Your task to perform on an android device: toggle notification dots Image 0: 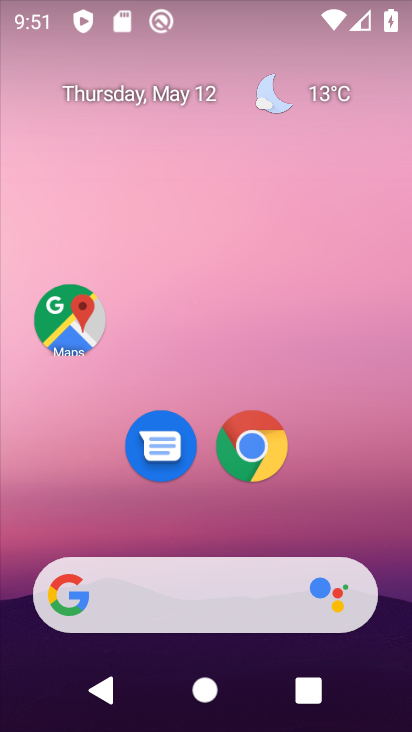
Step 0: click (405, 547)
Your task to perform on an android device: toggle notification dots Image 1: 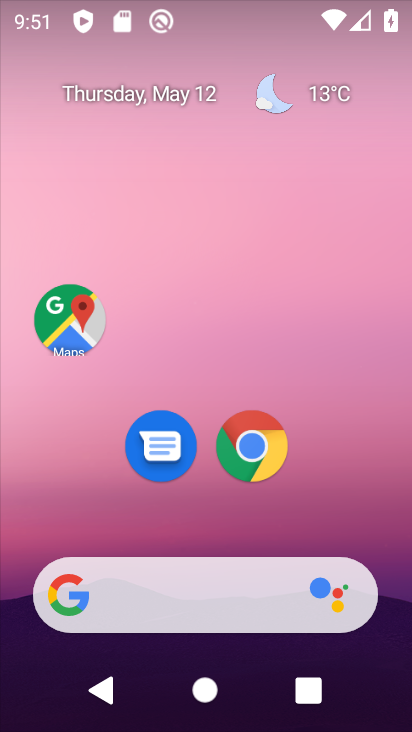
Step 1: drag from (217, 545) to (232, 74)
Your task to perform on an android device: toggle notification dots Image 2: 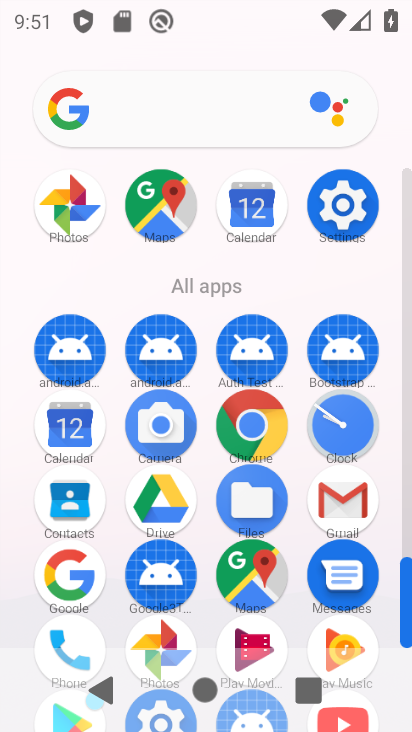
Step 2: click (347, 204)
Your task to perform on an android device: toggle notification dots Image 3: 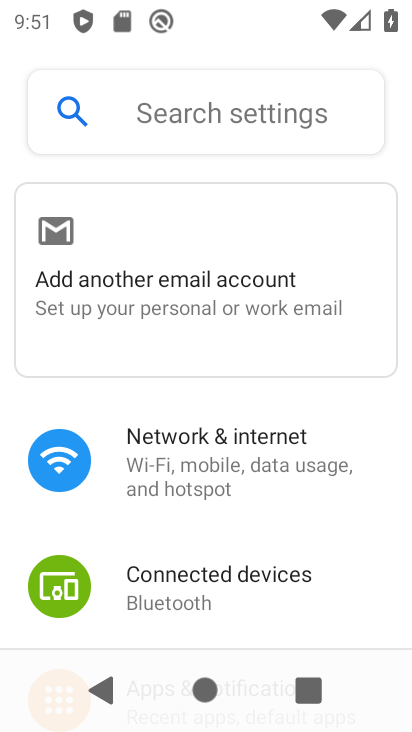
Step 3: drag from (211, 590) to (238, 247)
Your task to perform on an android device: toggle notification dots Image 4: 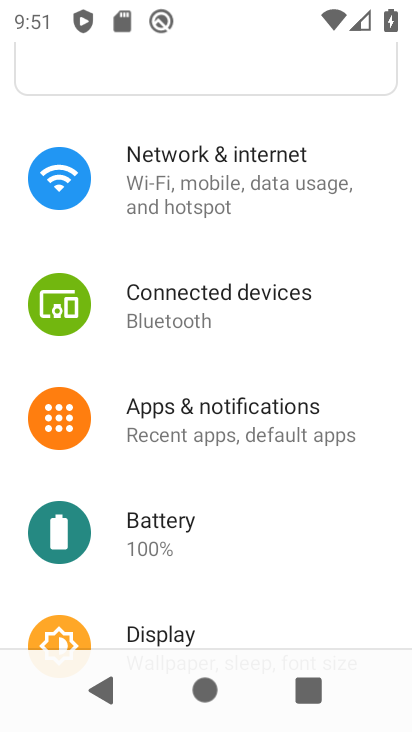
Step 4: click (215, 421)
Your task to perform on an android device: toggle notification dots Image 5: 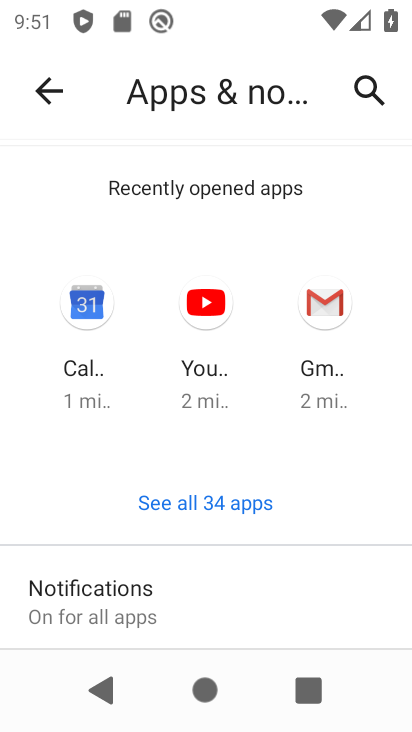
Step 5: drag from (210, 550) to (231, 308)
Your task to perform on an android device: toggle notification dots Image 6: 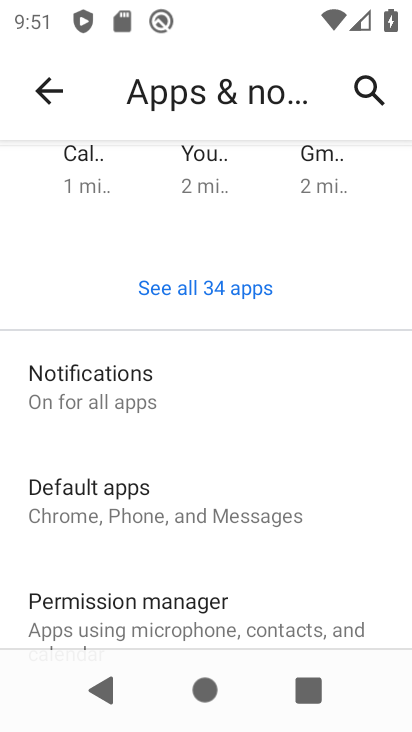
Step 6: click (174, 370)
Your task to perform on an android device: toggle notification dots Image 7: 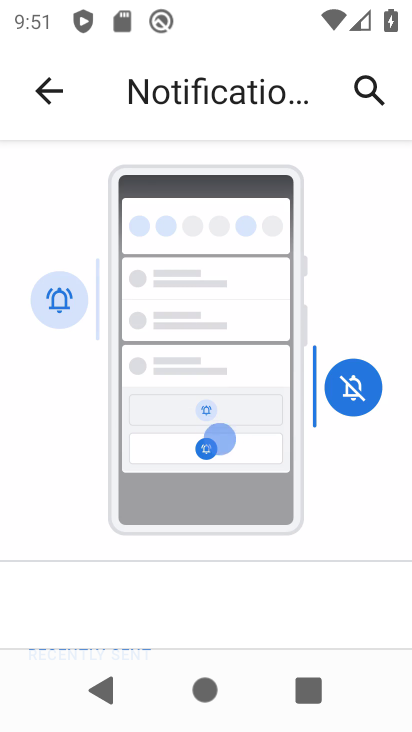
Step 7: drag from (204, 592) to (239, 208)
Your task to perform on an android device: toggle notification dots Image 8: 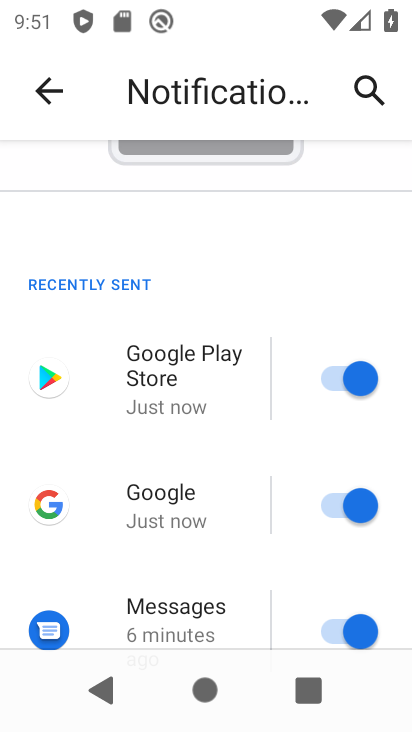
Step 8: drag from (213, 531) to (227, 11)
Your task to perform on an android device: toggle notification dots Image 9: 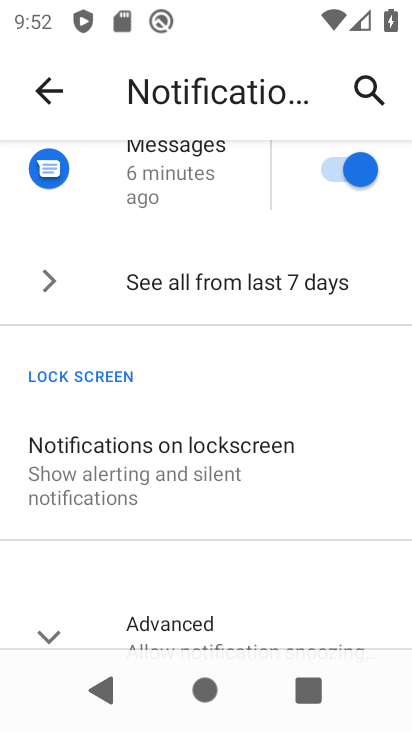
Step 9: click (209, 626)
Your task to perform on an android device: toggle notification dots Image 10: 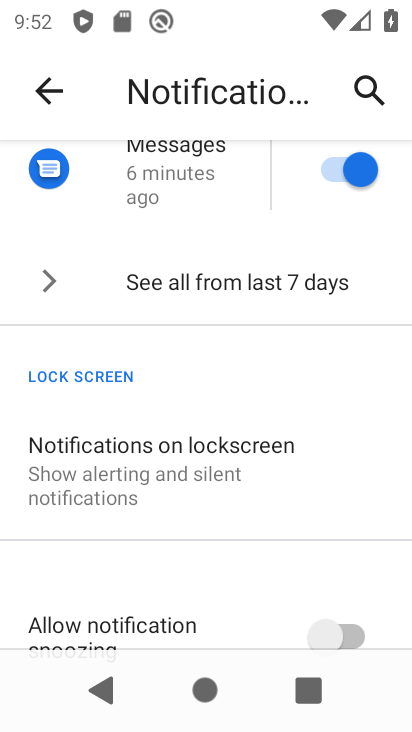
Step 10: drag from (212, 563) to (262, 296)
Your task to perform on an android device: toggle notification dots Image 11: 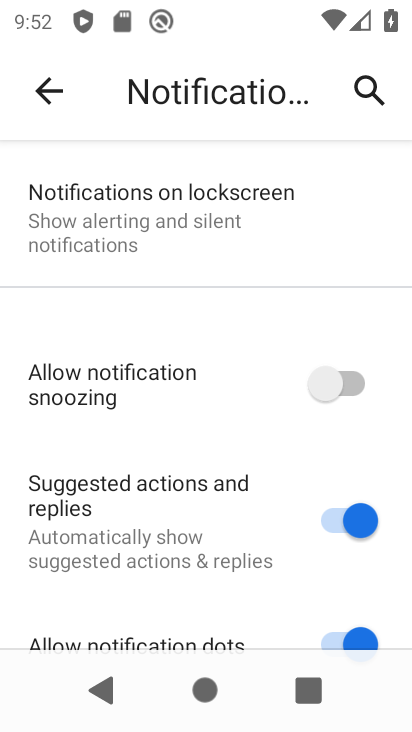
Step 11: click (325, 642)
Your task to perform on an android device: toggle notification dots Image 12: 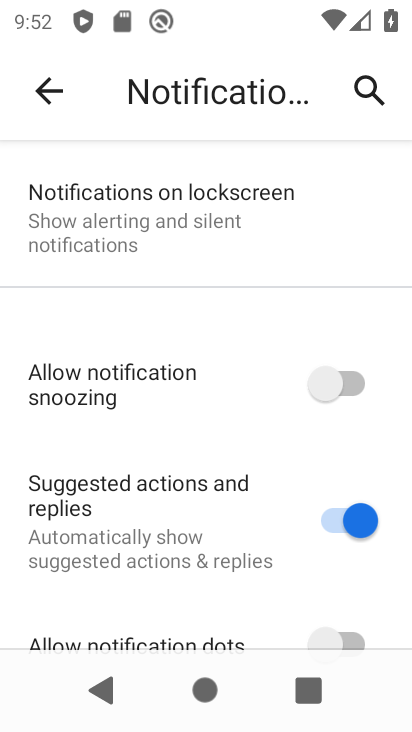
Step 12: task complete